Your task to perform on an android device: Open settings Image 0: 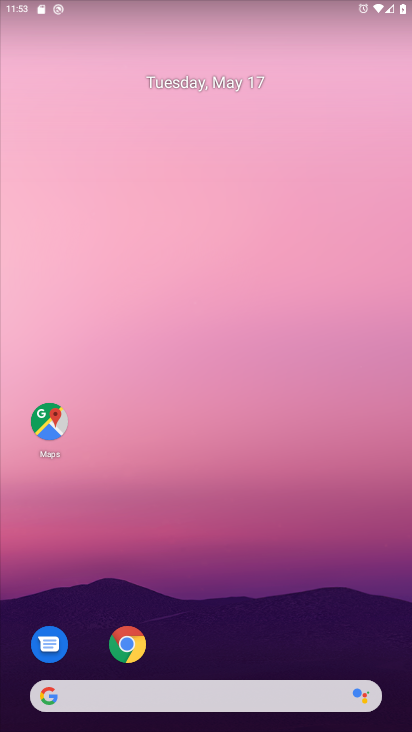
Step 0: drag from (214, 649) to (244, 83)
Your task to perform on an android device: Open settings Image 1: 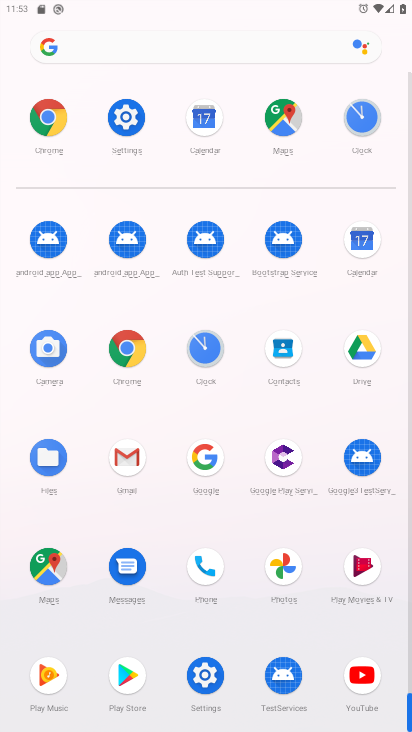
Step 1: click (126, 109)
Your task to perform on an android device: Open settings Image 2: 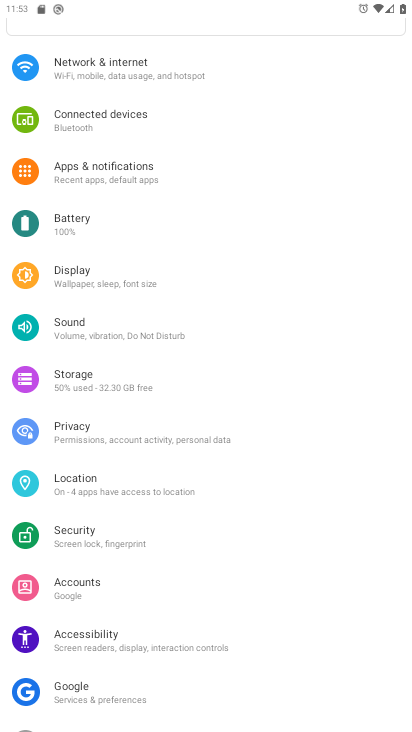
Step 2: task complete